Your task to perform on an android device: change your default location settings in chrome Image 0: 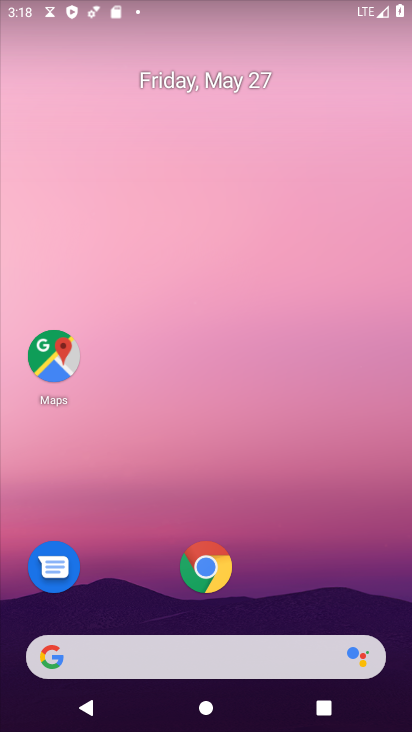
Step 0: click (201, 563)
Your task to perform on an android device: change your default location settings in chrome Image 1: 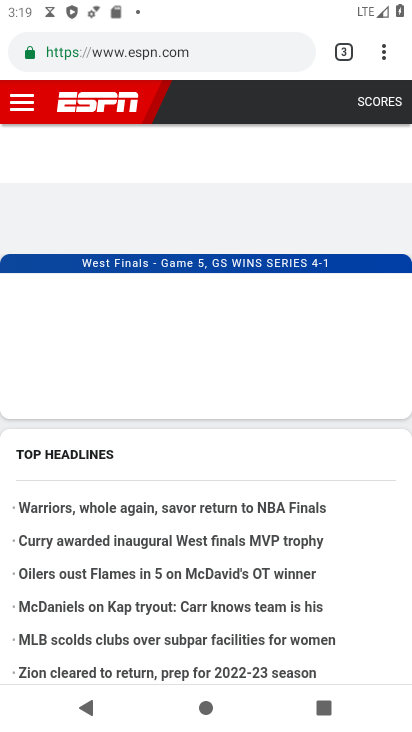
Step 1: drag from (384, 46) to (224, 603)
Your task to perform on an android device: change your default location settings in chrome Image 2: 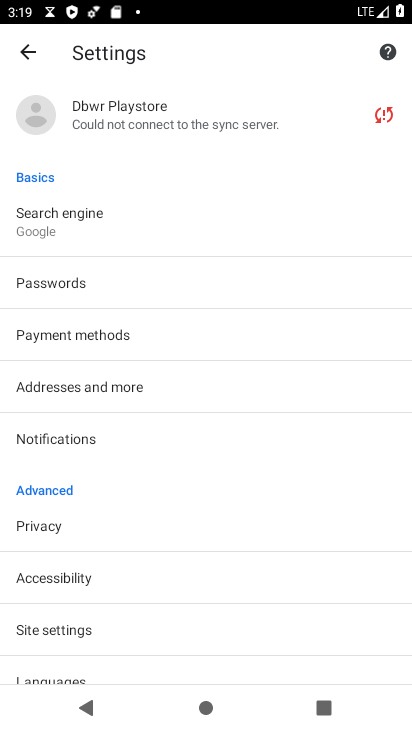
Step 2: click (58, 637)
Your task to perform on an android device: change your default location settings in chrome Image 3: 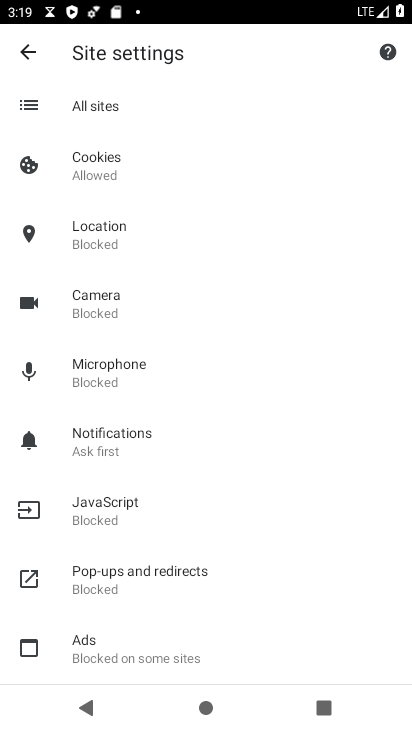
Step 3: click (111, 225)
Your task to perform on an android device: change your default location settings in chrome Image 4: 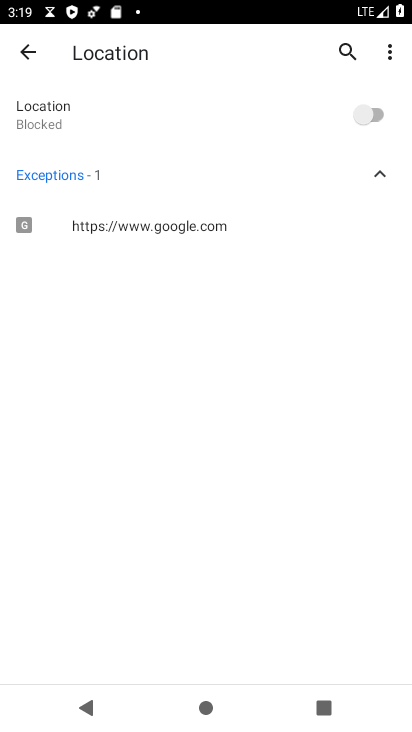
Step 4: click (363, 115)
Your task to perform on an android device: change your default location settings in chrome Image 5: 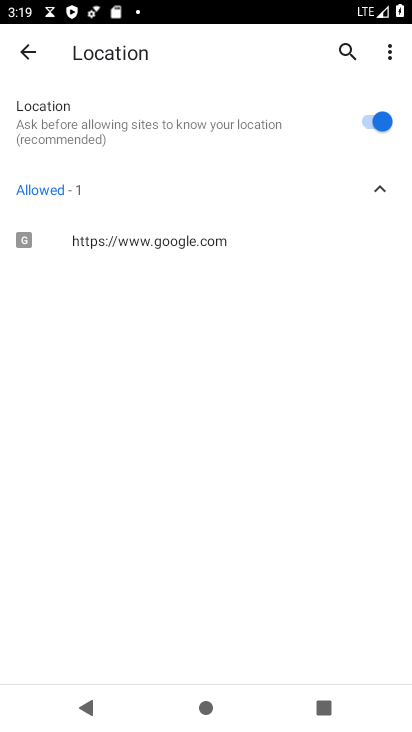
Step 5: task complete